Your task to perform on an android device: Open network settings Image 0: 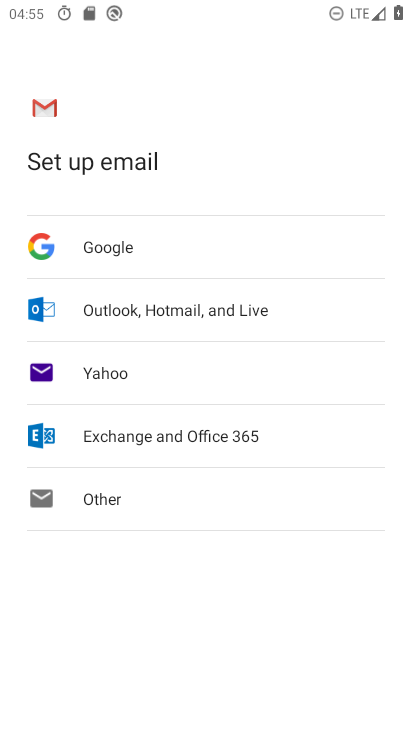
Step 0: press back button
Your task to perform on an android device: Open network settings Image 1: 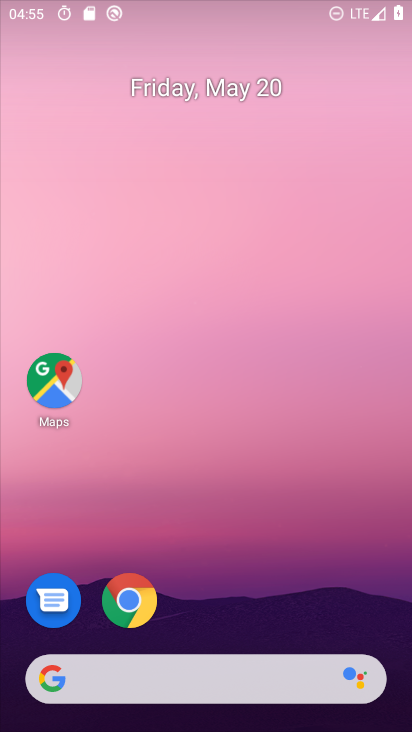
Step 1: drag from (317, 308) to (356, 31)
Your task to perform on an android device: Open network settings Image 2: 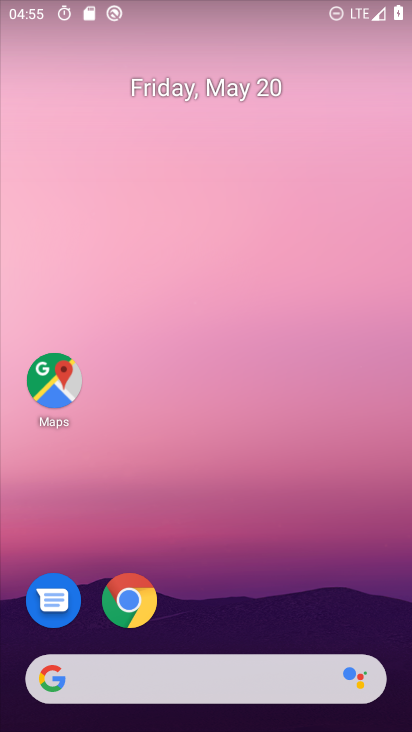
Step 2: drag from (191, 588) to (309, 29)
Your task to perform on an android device: Open network settings Image 3: 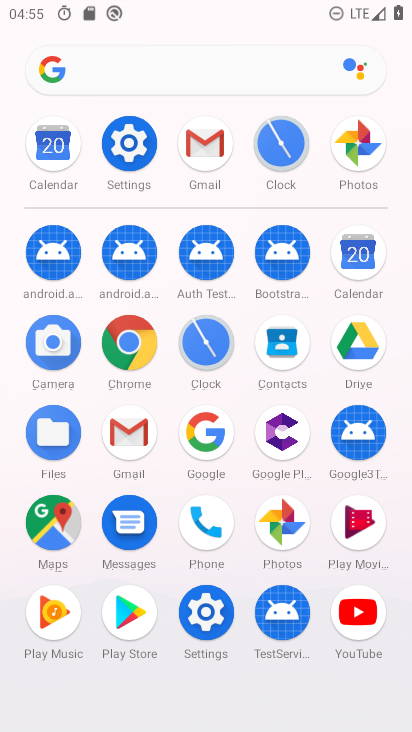
Step 3: click (138, 147)
Your task to perform on an android device: Open network settings Image 4: 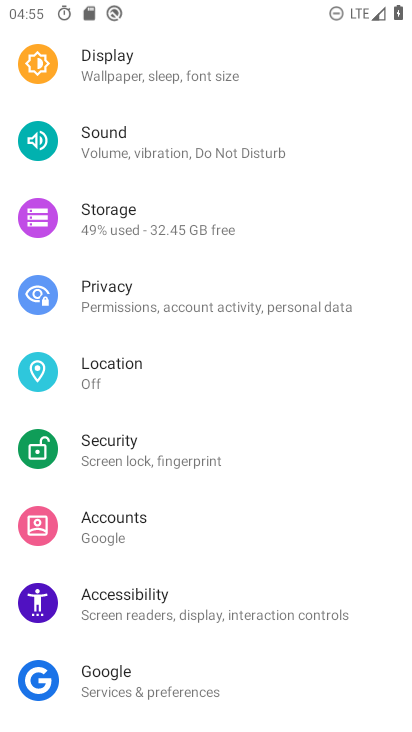
Step 4: drag from (229, 126) to (268, 568)
Your task to perform on an android device: Open network settings Image 5: 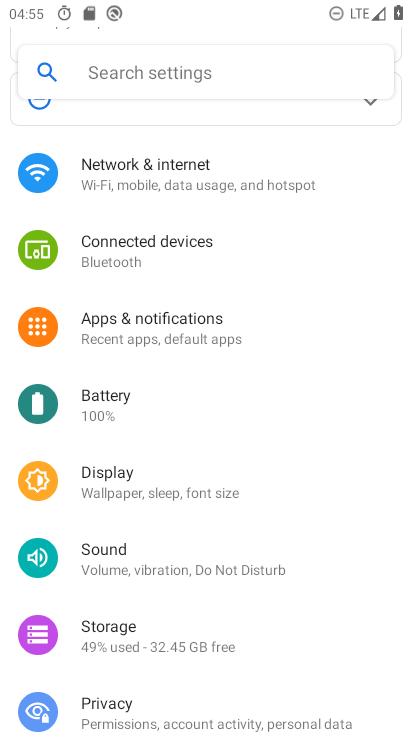
Step 5: click (157, 173)
Your task to perform on an android device: Open network settings Image 6: 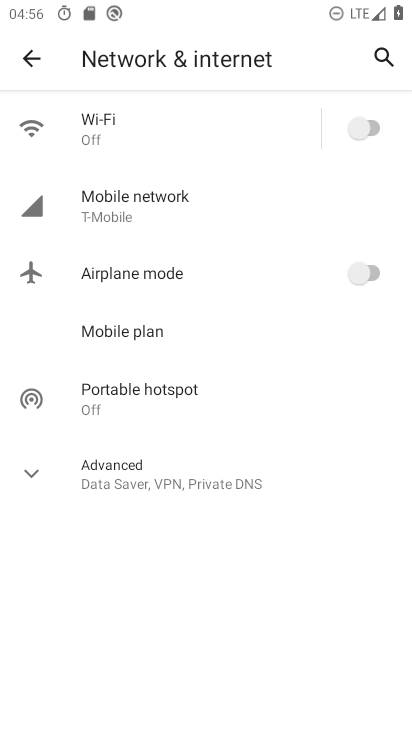
Step 6: task complete